Your task to perform on an android device: Go to display settings Image 0: 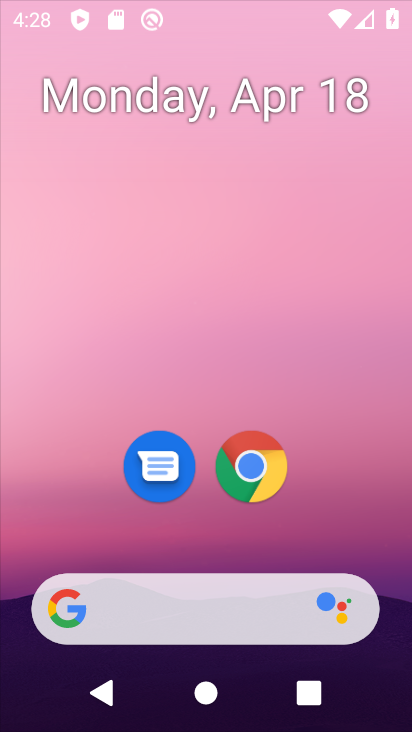
Step 0: click (258, 3)
Your task to perform on an android device: Go to display settings Image 1: 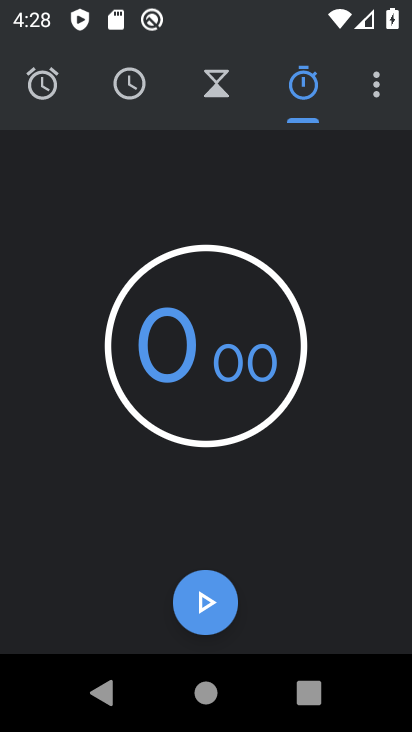
Step 1: press back button
Your task to perform on an android device: Go to display settings Image 2: 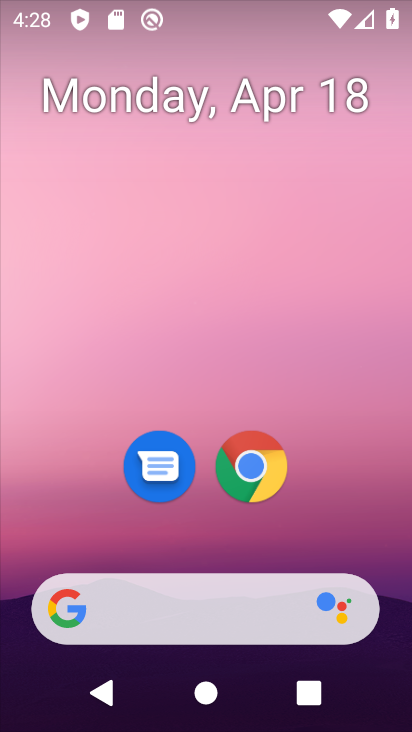
Step 2: drag from (330, 502) to (221, 5)
Your task to perform on an android device: Go to display settings Image 3: 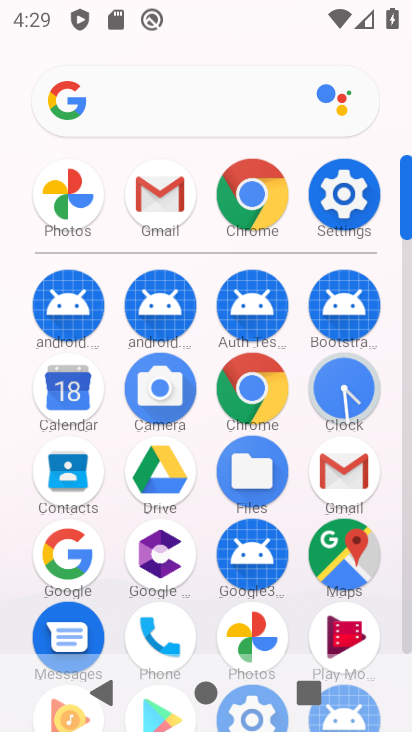
Step 3: click (347, 194)
Your task to perform on an android device: Go to display settings Image 4: 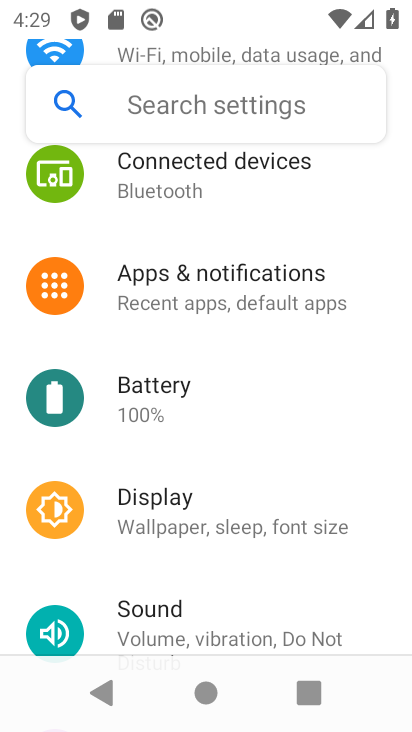
Step 4: drag from (316, 243) to (272, 501)
Your task to perform on an android device: Go to display settings Image 5: 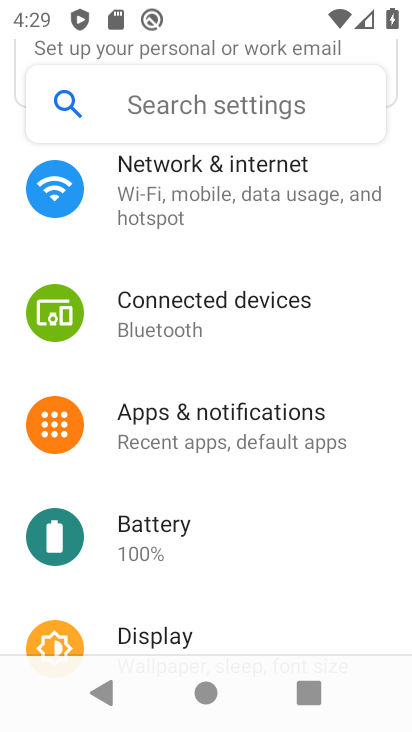
Step 5: drag from (309, 209) to (283, 474)
Your task to perform on an android device: Go to display settings Image 6: 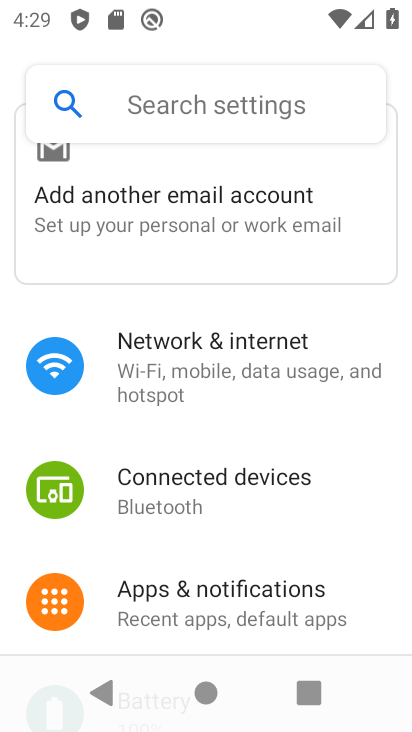
Step 6: drag from (271, 505) to (260, 198)
Your task to perform on an android device: Go to display settings Image 7: 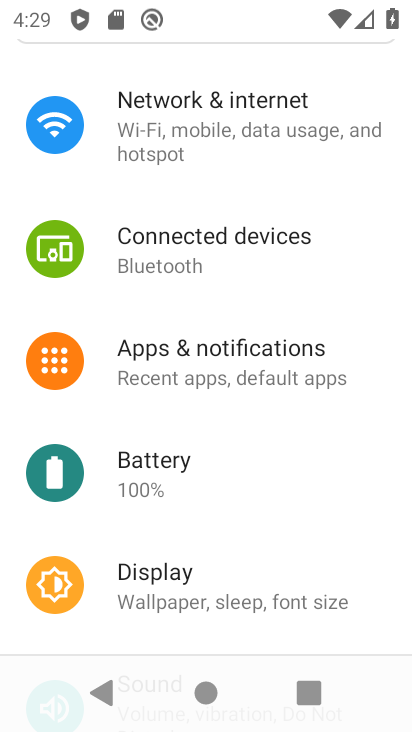
Step 7: drag from (272, 430) to (273, 187)
Your task to perform on an android device: Go to display settings Image 8: 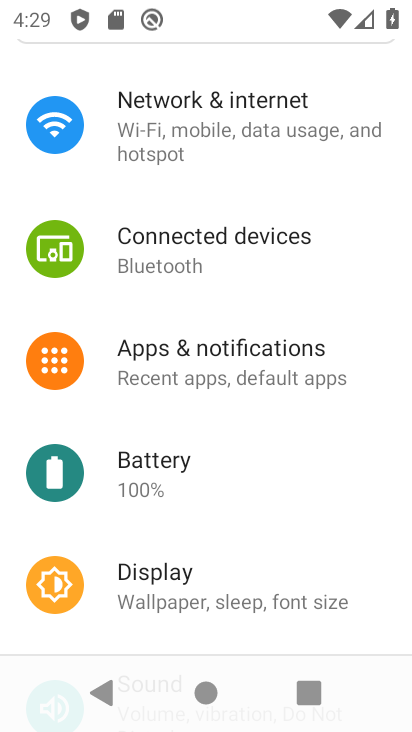
Step 8: drag from (256, 487) to (255, 188)
Your task to perform on an android device: Go to display settings Image 9: 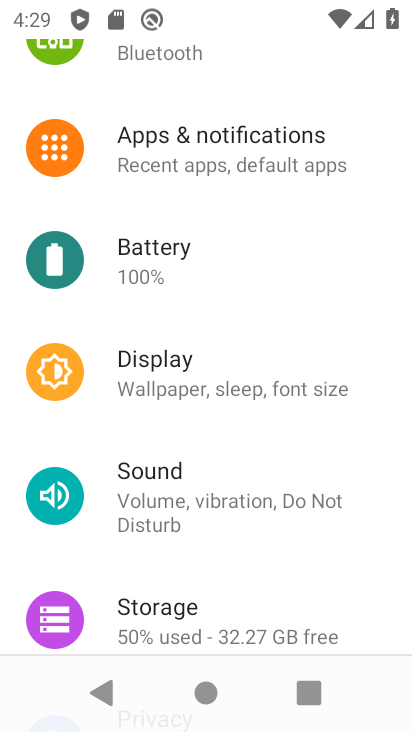
Step 9: drag from (243, 456) to (255, 116)
Your task to perform on an android device: Go to display settings Image 10: 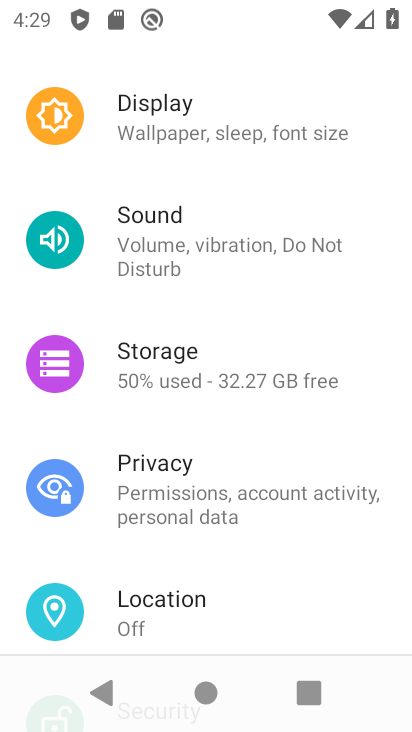
Step 10: click (231, 116)
Your task to perform on an android device: Go to display settings Image 11: 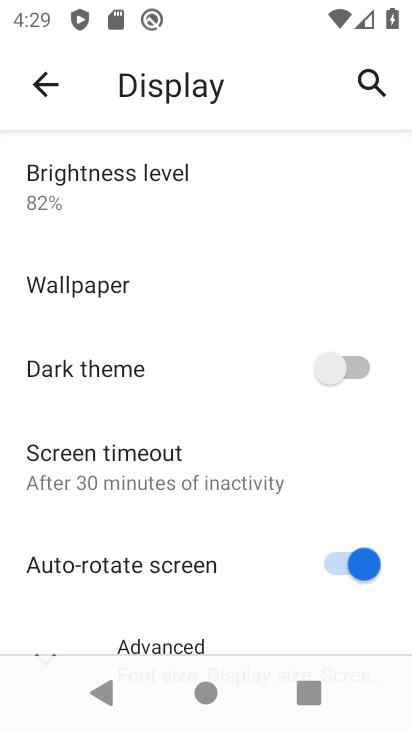
Step 11: drag from (176, 494) to (199, 142)
Your task to perform on an android device: Go to display settings Image 12: 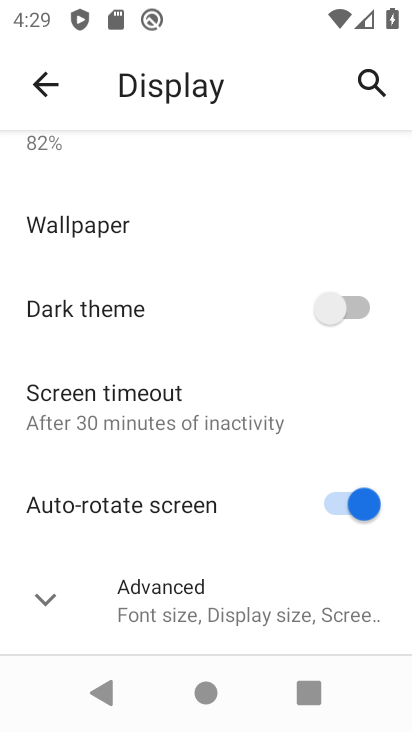
Step 12: drag from (184, 453) to (208, 175)
Your task to perform on an android device: Go to display settings Image 13: 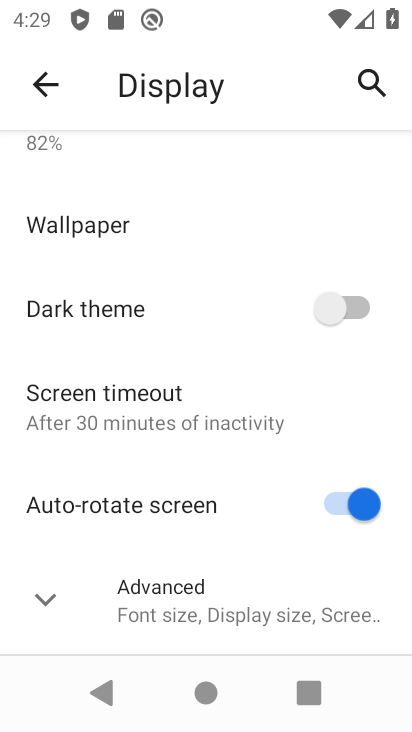
Step 13: click (72, 598)
Your task to perform on an android device: Go to display settings Image 14: 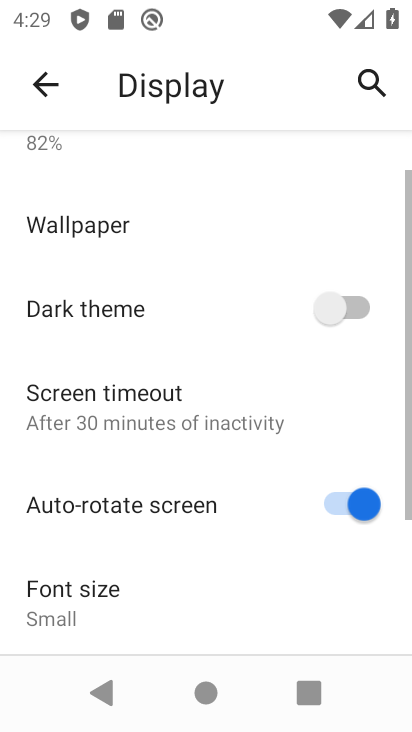
Step 14: task complete